Your task to perform on an android device: Open Chrome and go to settings Image 0: 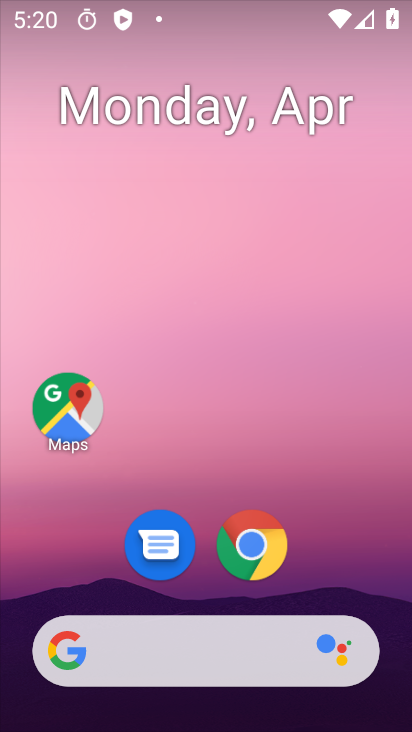
Step 0: drag from (365, 540) to (387, 149)
Your task to perform on an android device: Open Chrome and go to settings Image 1: 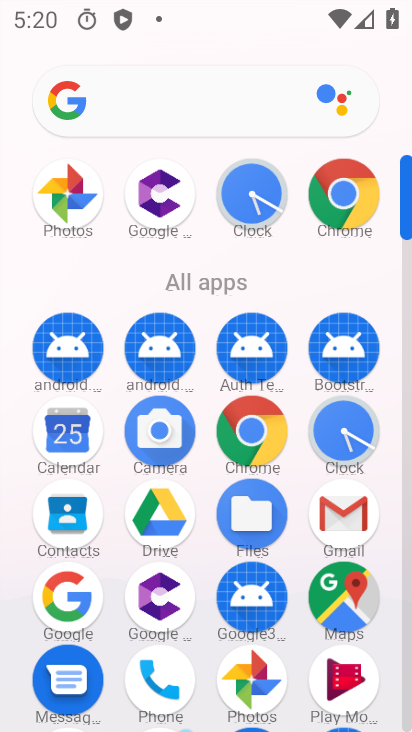
Step 1: click (336, 199)
Your task to perform on an android device: Open Chrome and go to settings Image 2: 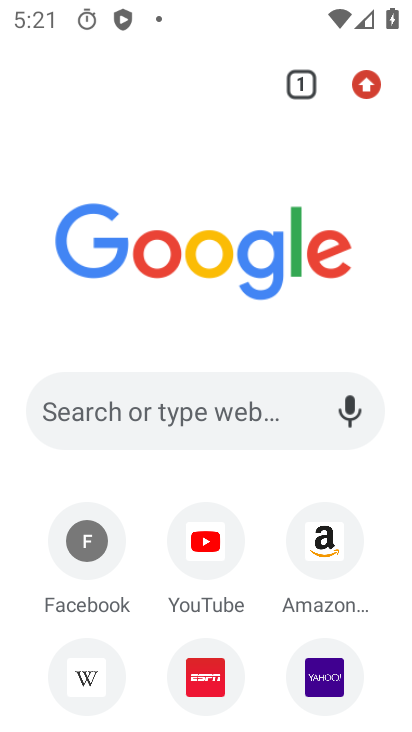
Step 2: task complete